Your task to perform on an android device: Open calendar and show me the third week of next month Image 0: 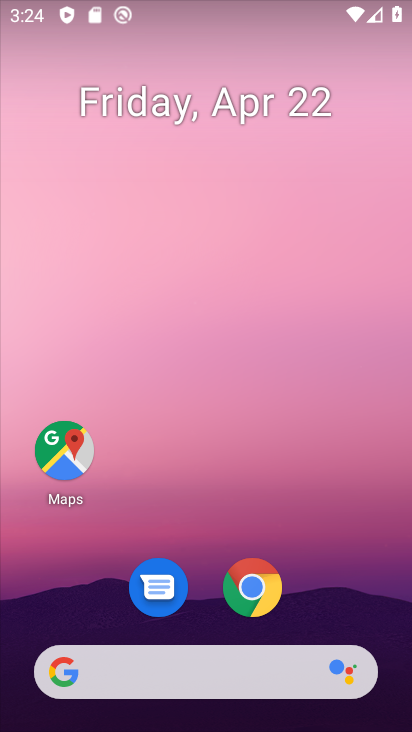
Step 0: drag from (200, 533) to (313, 2)
Your task to perform on an android device: Open calendar and show me the third week of next month Image 1: 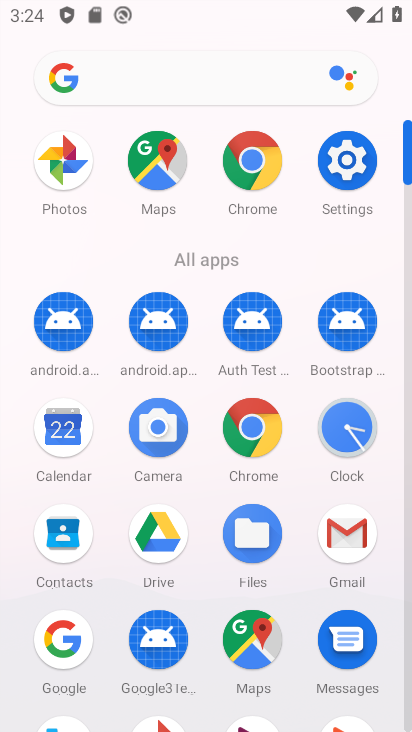
Step 1: click (65, 434)
Your task to perform on an android device: Open calendar and show me the third week of next month Image 2: 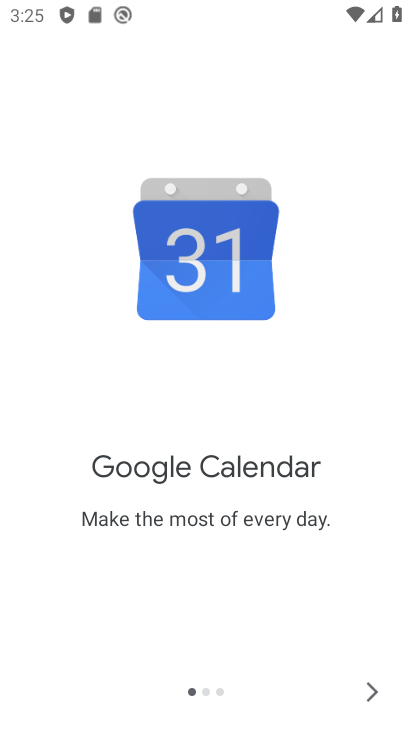
Step 2: click (375, 693)
Your task to perform on an android device: Open calendar and show me the third week of next month Image 3: 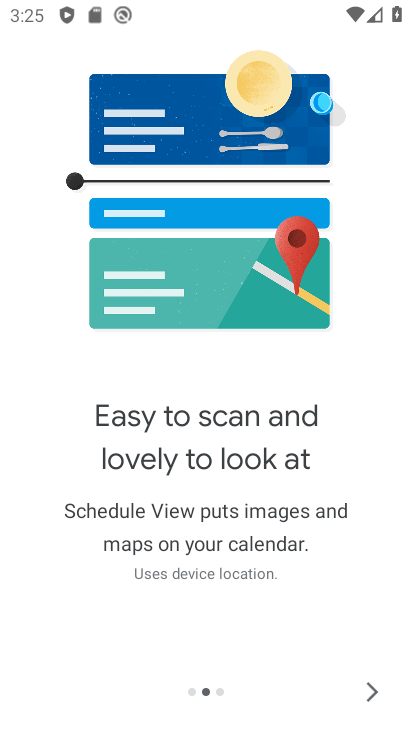
Step 3: click (375, 693)
Your task to perform on an android device: Open calendar and show me the third week of next month Image 4: 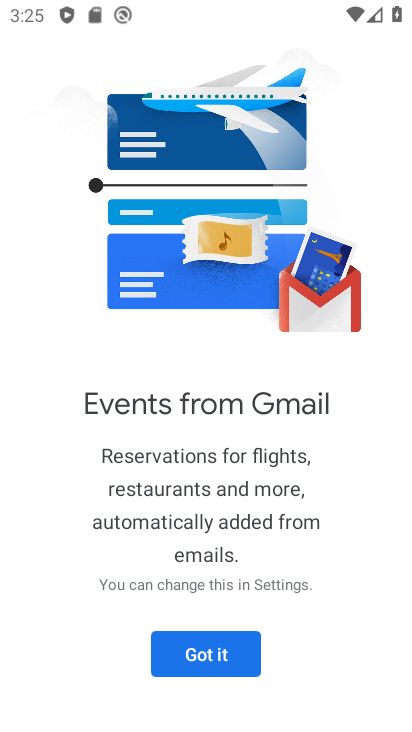
Step 4: click (201, 656)
Your task to perform on an android device: Open calendar and show me the third week of next month Image 5: 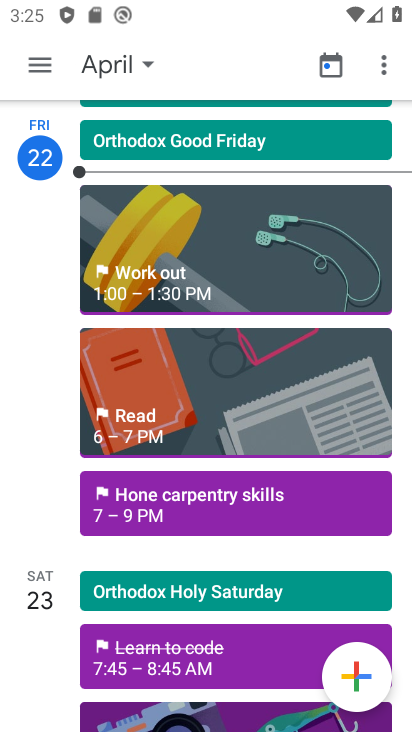
Step 5: click (146, 64)
Your task to perform on an android device: Open calendar and show me the third week of next month Image 6: 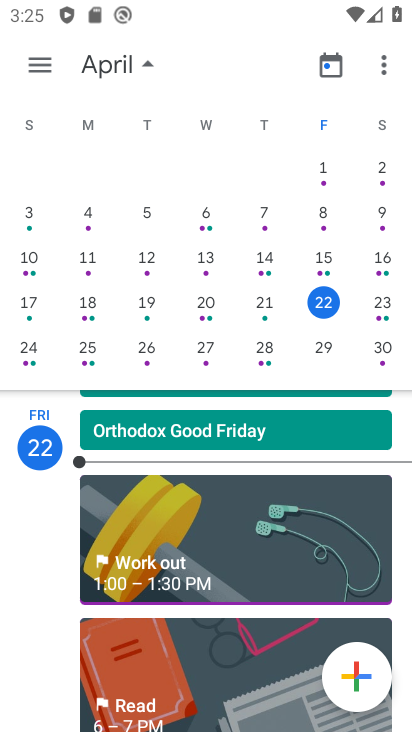
Step 6: drag from (290, 327) to (3, 301)
Your task to perform on an android device: Open calendar and show me the third week of next month Image 7: 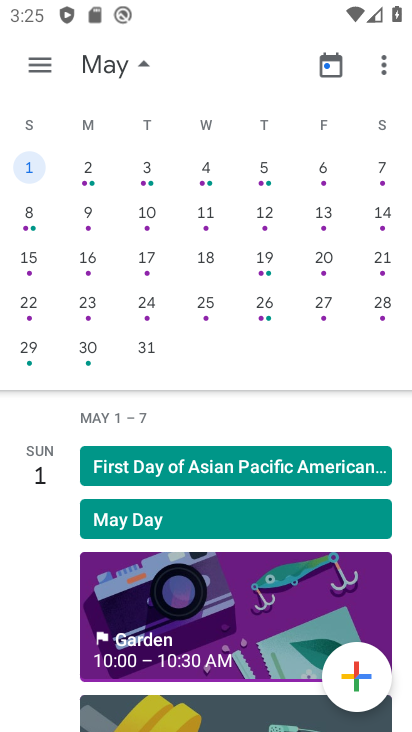
Step 7: click (93, 264)
Your task to perform on an android device: Open calendar and show me the third week of next month Image 8: 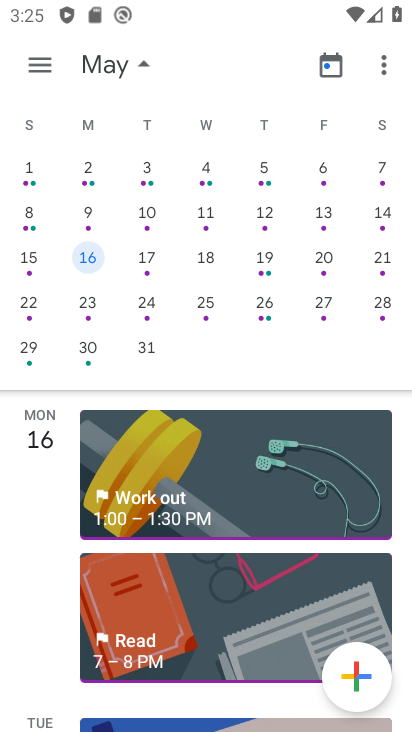
Step 8: click (41, 59)
Your task to perform on an android device: Open calendar and show me the third week of next month Image 9: 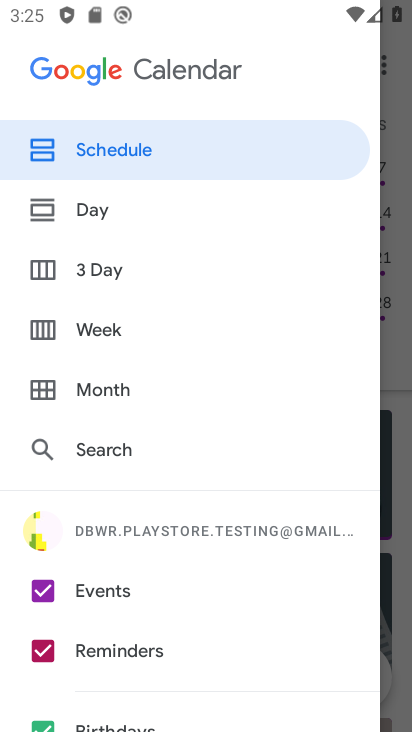
Step 9: click (103, 326)
Your task to perform on an android device: Open calendar and show me the third week of next month Image 10: 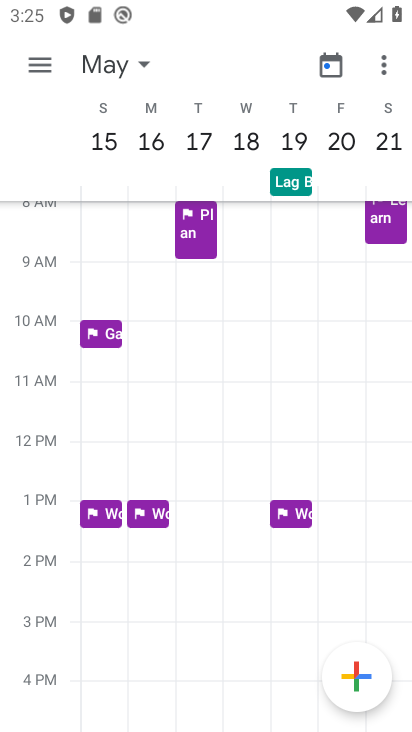
Step 10: task complete